Your task to perform on an android device: toggle priority inbox in the gmail app Image 0: 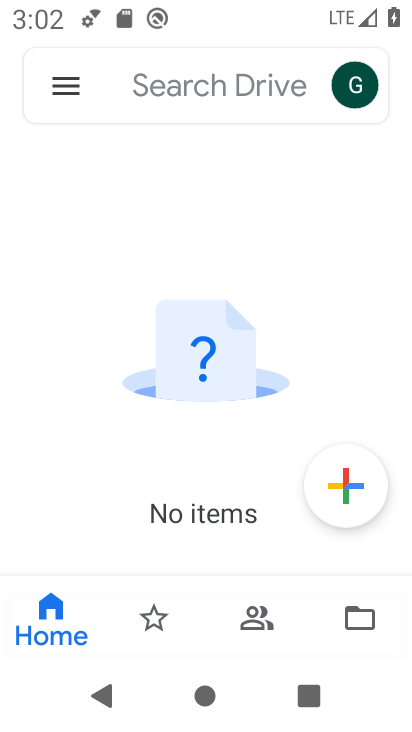
Step 0: press home button
Your task to perform on an android device: toggle priority inbox in the gmail app Image 1: 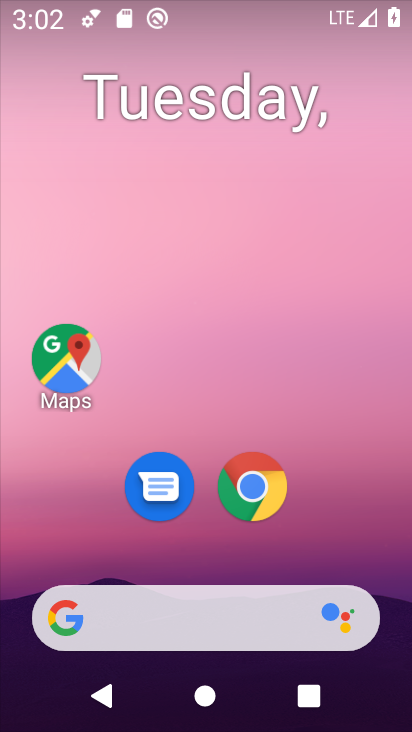
Step 1: drag from (347, 545) to (332, 55)
Your task to perform on an android device: toggle priority inbox in the gmail app Image 2: 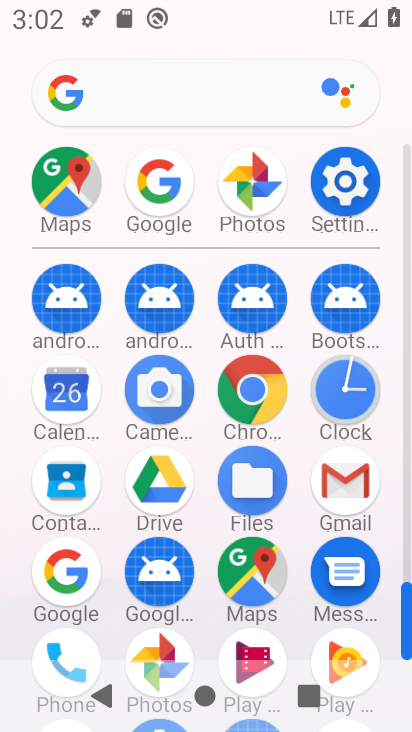
Step 2: click (343, 490)
Your task to perform on an android device: toggle priority inbox in the gmail app Image 3: 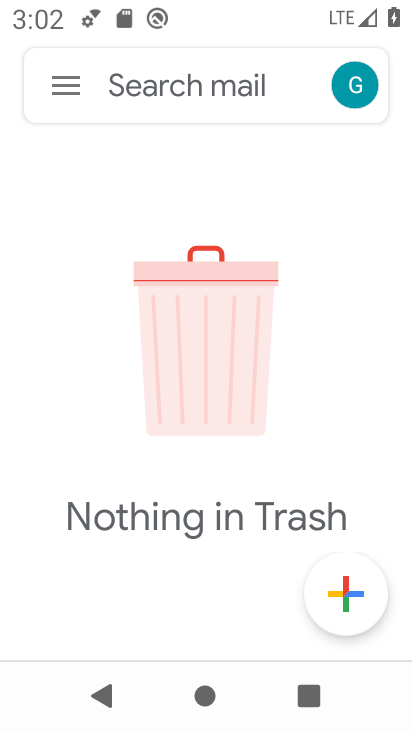
Step 3: click (63, 89)
Your task to perform on an android device: toggle priority inbox in the gmail app Image 4: 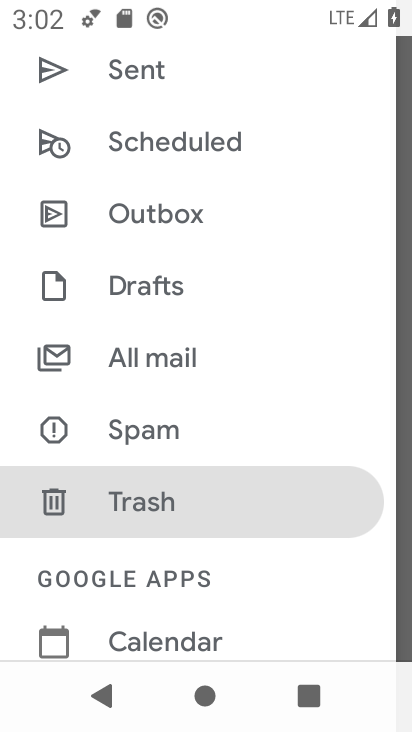
Step 4: drag from (278, 284) to (289, 358)
Your task to perform on an android device: toggle priority inbox in the gmail app Image 5: 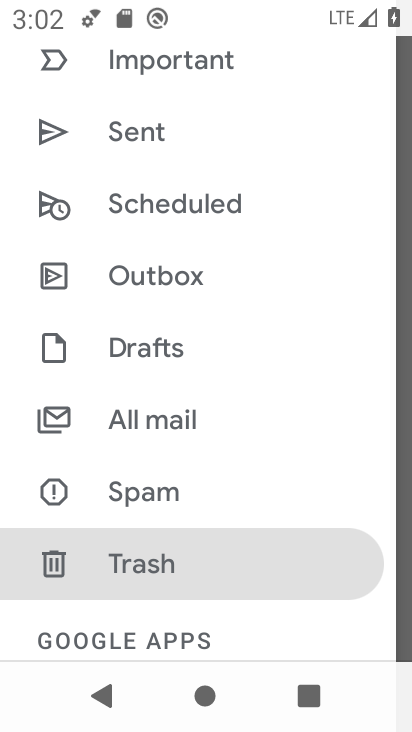
Step 5: drag from (314, 235) to (328, 307)
Your task to perform on an android device: toggle priority inbox in the gmail app Image 6: 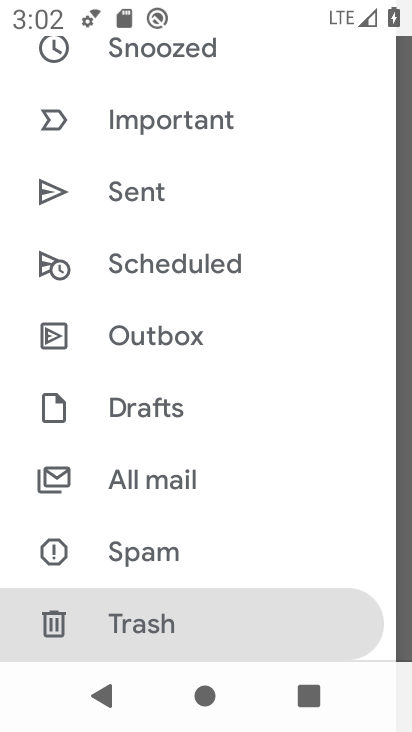
Step 6: drag from (327, 242) to (341, 337)
Your task to perform on an android device: toggle priority inbox in the gmail app Image 7: 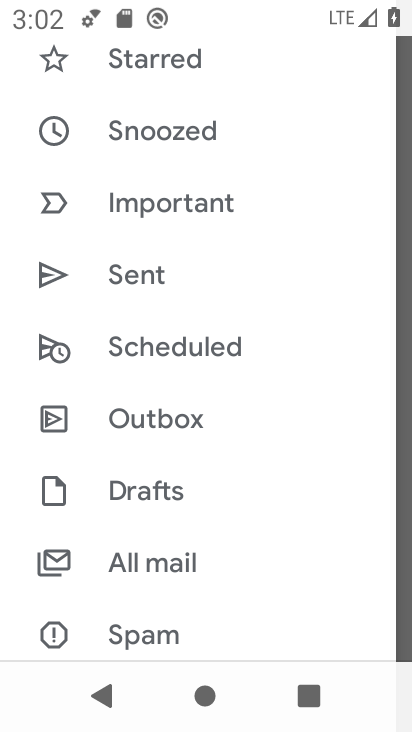
Step 7: drag from (341, 224) to (349, 379)
Your task to perform on an android device: toggle priority inbox in the gmail app Image 8: 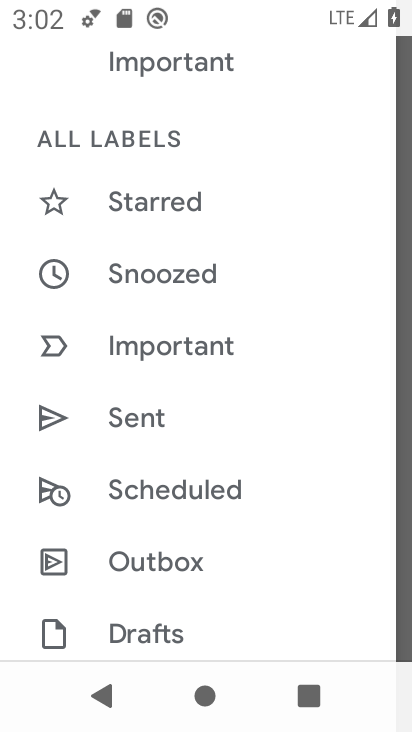
Step 8: drag from (335, 415) to (331, 325)
Your task to perform on an android device: toggle priority inbox in the gmail app Image 9: 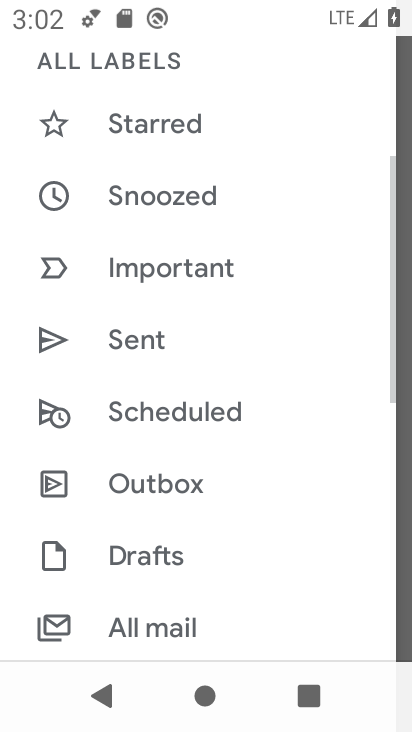
Step 9: drag from (331, 422) to (332, 341)
Your task to perform on an android device: toggle priority inbox in the gmail app Image 10: 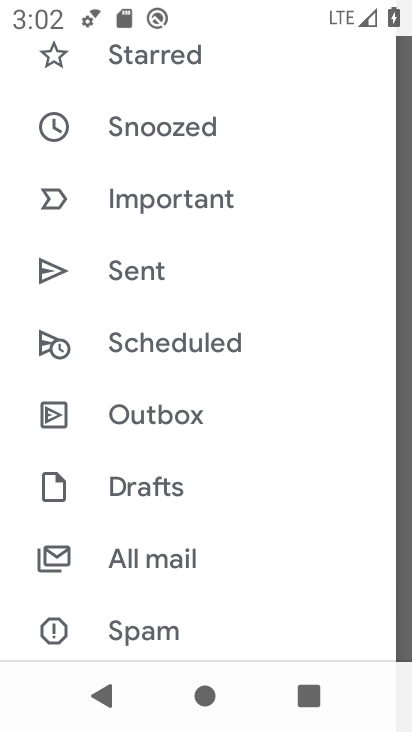
Step 10: drag from (332, 427) to (327, 341)
Your task to perform on an android device: toggle priority inbox in the gmail app Image 11: 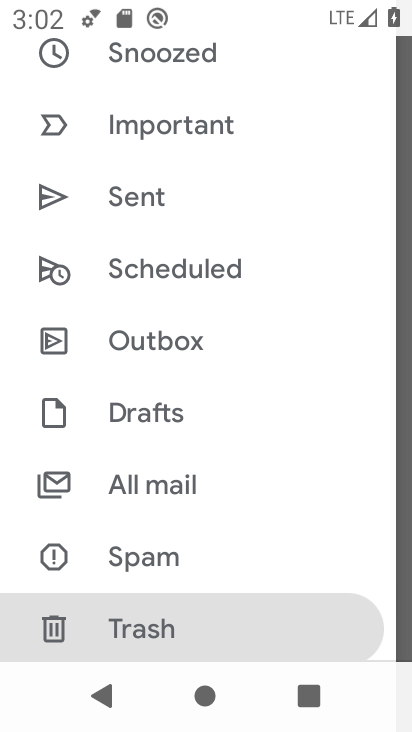
Step 11: drag from (296, 443) to (295, 353)
Your task to perform on an android device: toggle priority inbox in the gmail app Image 12: 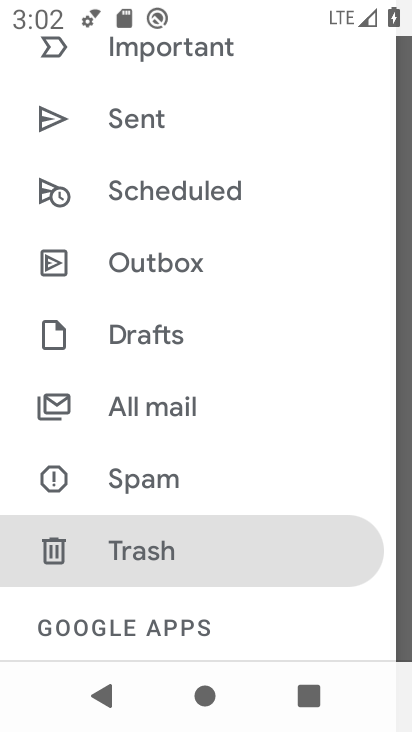
Step 12: drag from (296, 449) to (296, 339)
Your task to perform on an android device: toggle priority inbox in the gmail app Image 13: 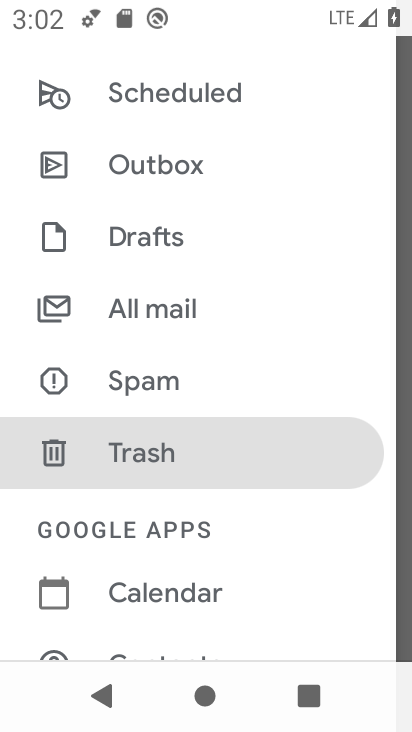
Step 13: drag from (296, 479) to (294, 352)
Your task to perform on an android device: toggle priority inbox in the gmail app Image 14: 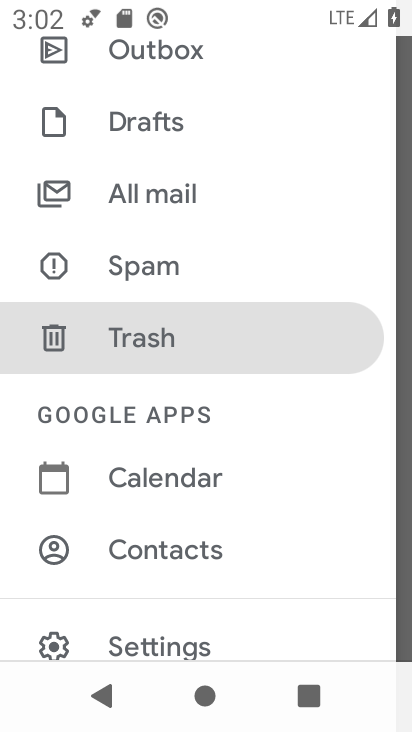
Step 14: drag from (297, 505) to (298, 334)
Your task to perform on an android device: toggle priority inbox in the gmail app Image 15: 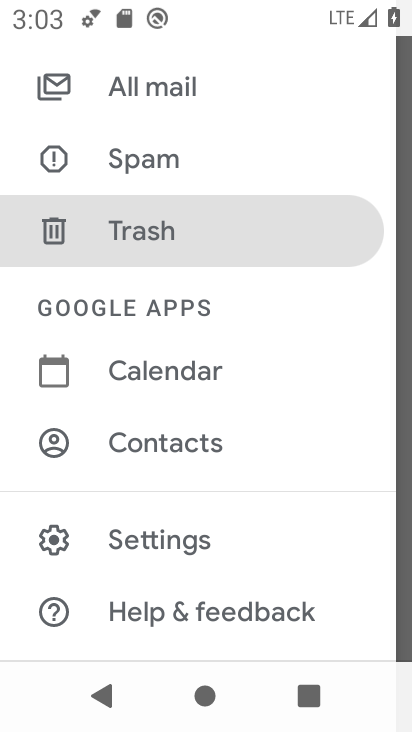
Step 15: click (261, 532)
Your task to perform on an android device: toggle priority inbox in the gmail app Image 16: 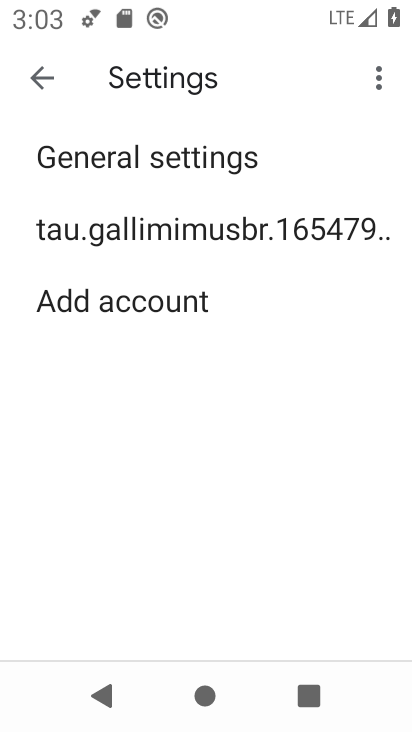
Step 16: click (249, 235)
Your task to perform on an android device: toggle priority inbox in the gmail app Image 17: 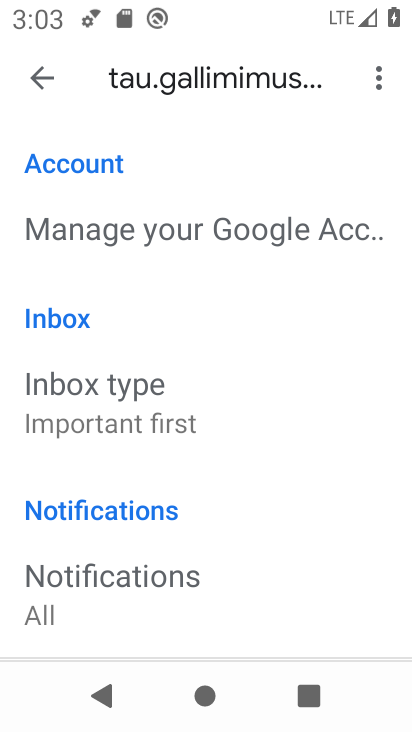
Step 17: click (193, 425)
Your task to perform on an android device: toggle priority inbox in the gmail app Image 18: 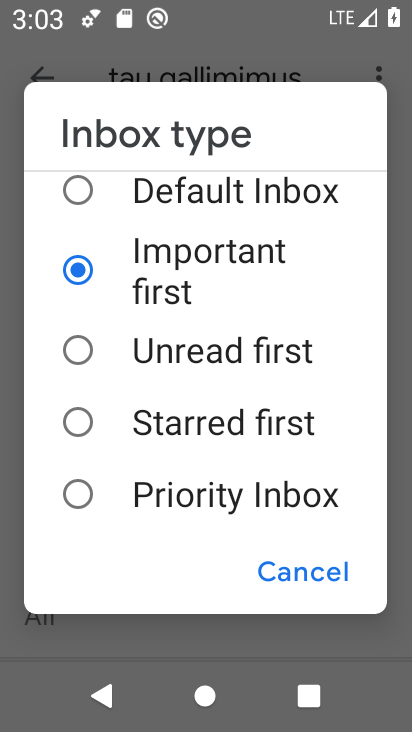
Step 18: click (190, 489)
Your task to perform on an android device: toggle priority inbox in the gmail app Image 19: 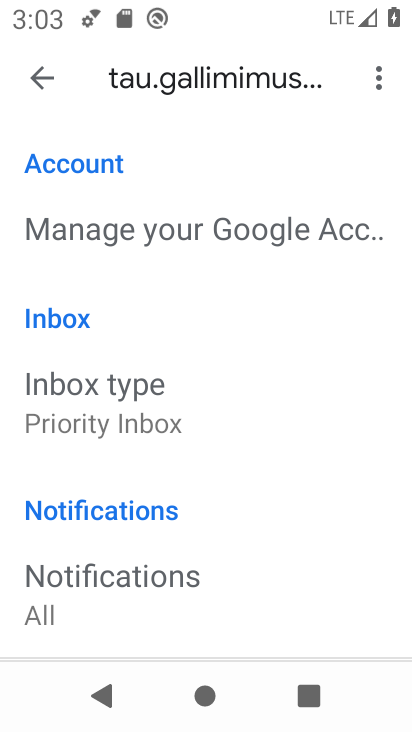
Step 19: task complete